Your task to perform on an android device: Where can I buy a nice beach bag? Image 0: 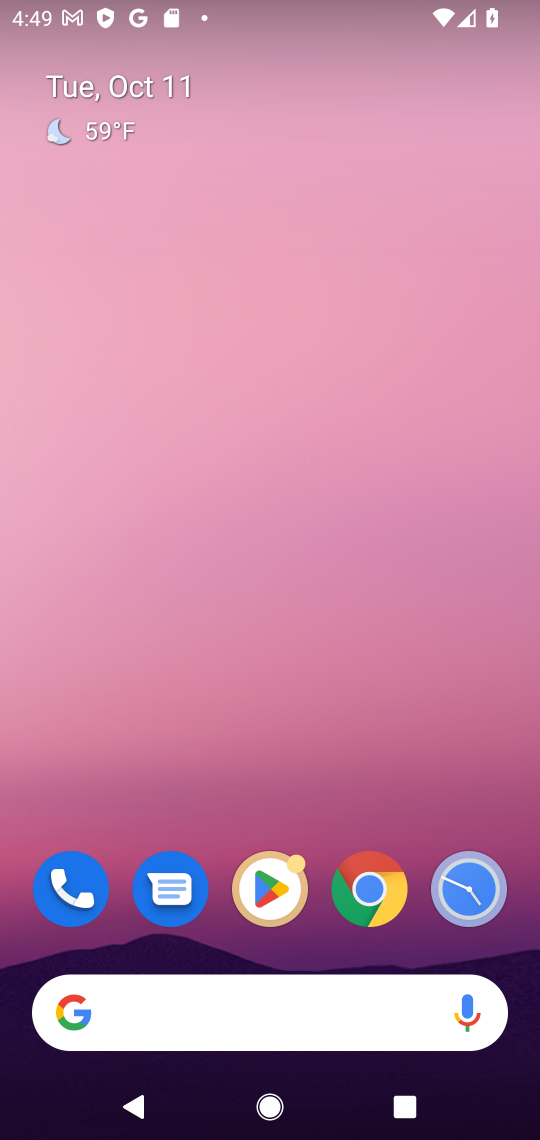
Step 0: drag from (283, 919) to (280, 406)
Your task to perform on an android device: Where can I buy a nice beach bag? Image 1: 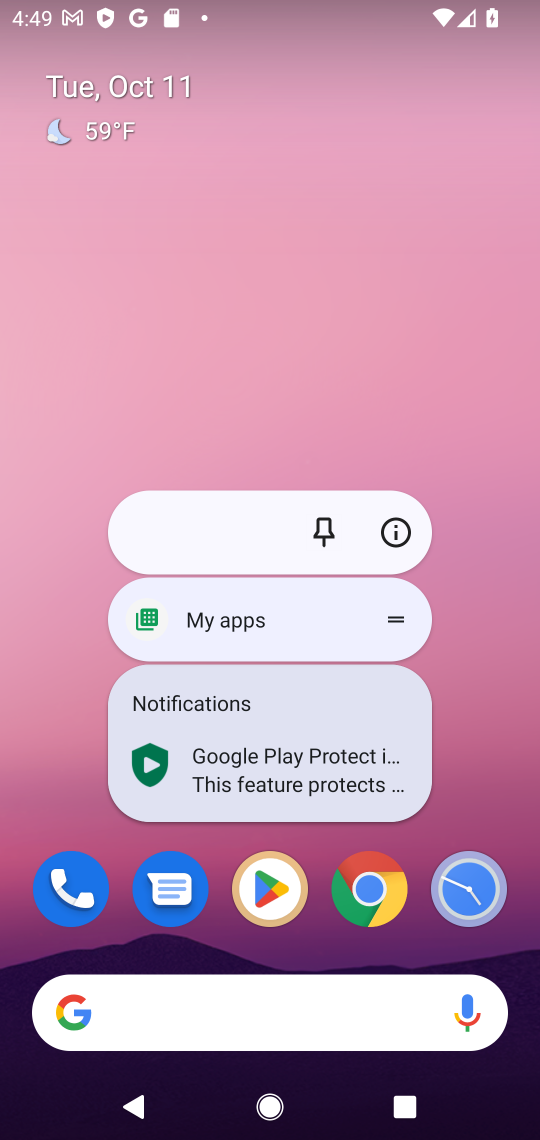
Step 1: click (62, 532)
Your task to perform on an android device: Where can I buy a nice beach bag? Image 2: 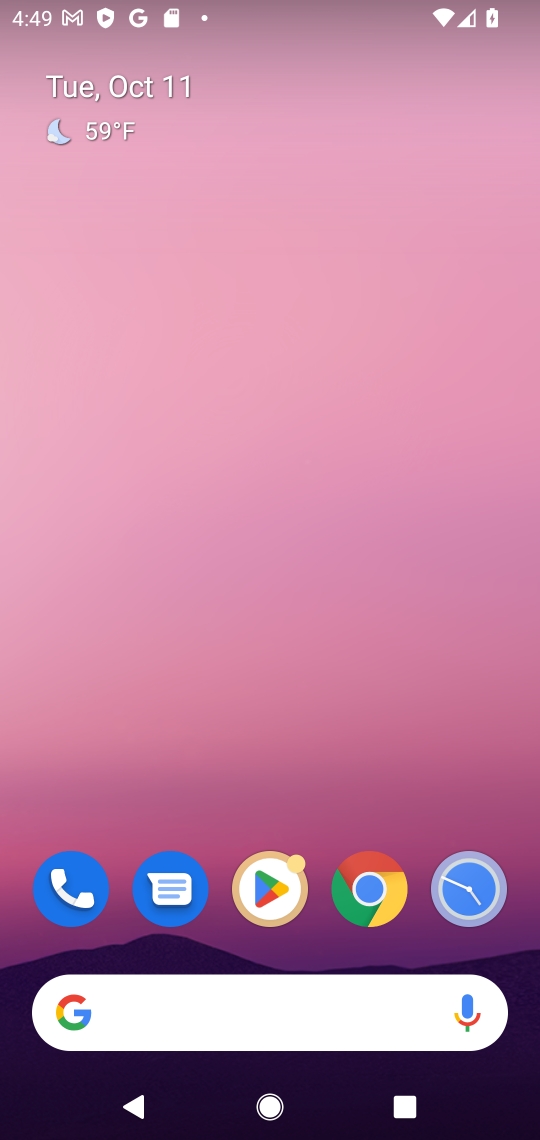
Step 2: drag from (245, 970) to (248, 568)
Your task to perform on an android device: Where can I buy a nice beach bag? Image 3: 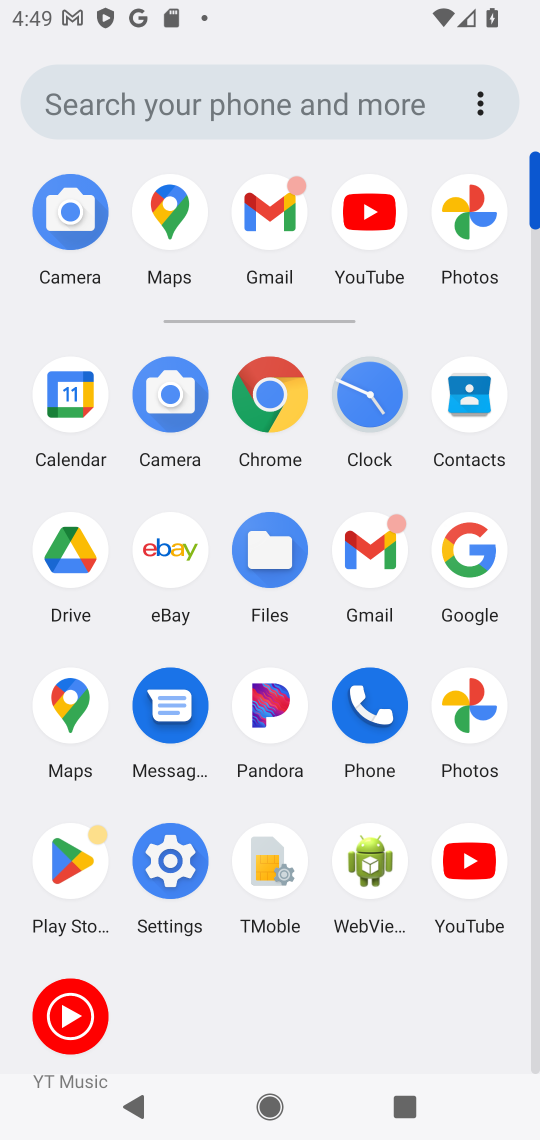
Step 3: click (471, 525)
Your task to perform on an android device: Where can I buy a nice beach bag? Image 4: 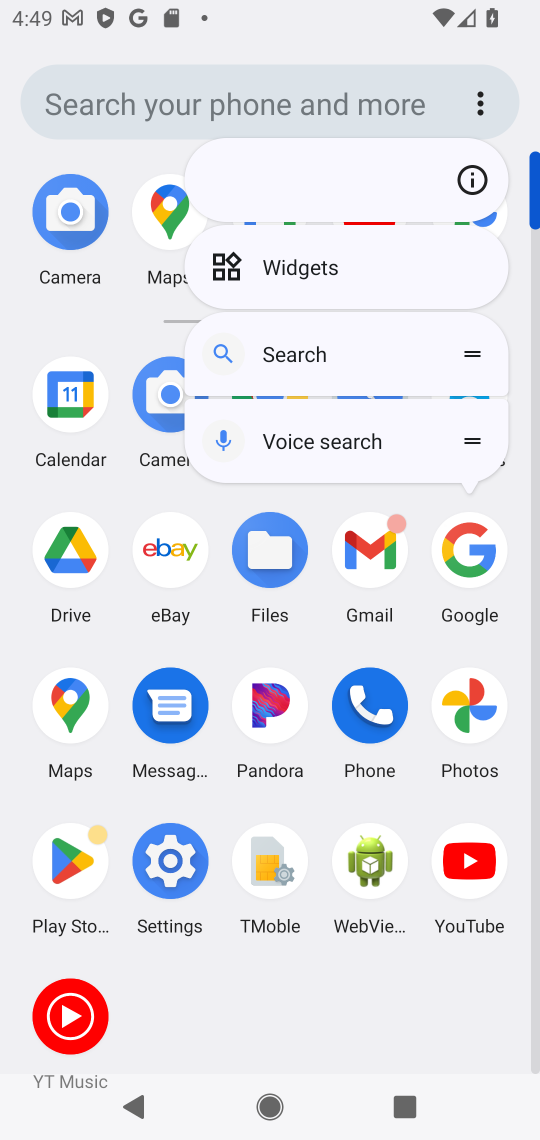
Step 4: click (468, 543)
Your task to perform on an android device: Where can I buy a nice beach bag? Image 5: 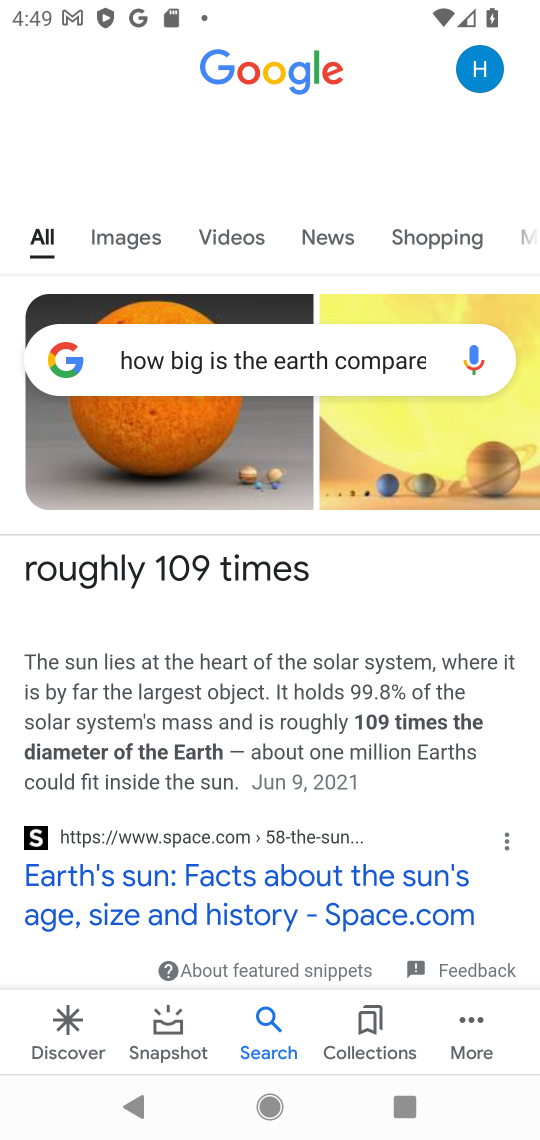
Step 5: click (267, 347)
Your task to perform on an android device: Where can I buy a nice beach bag? Image 6: 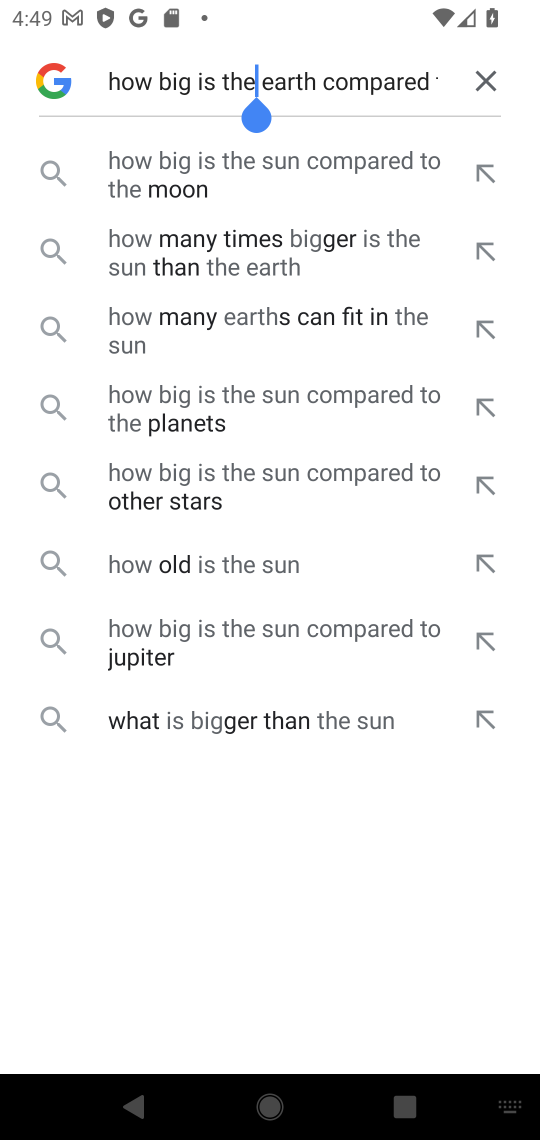
Step 6: click (496, 74)
Your task to perform on an android device: Where can I buy a nice beach bag? Image 7: 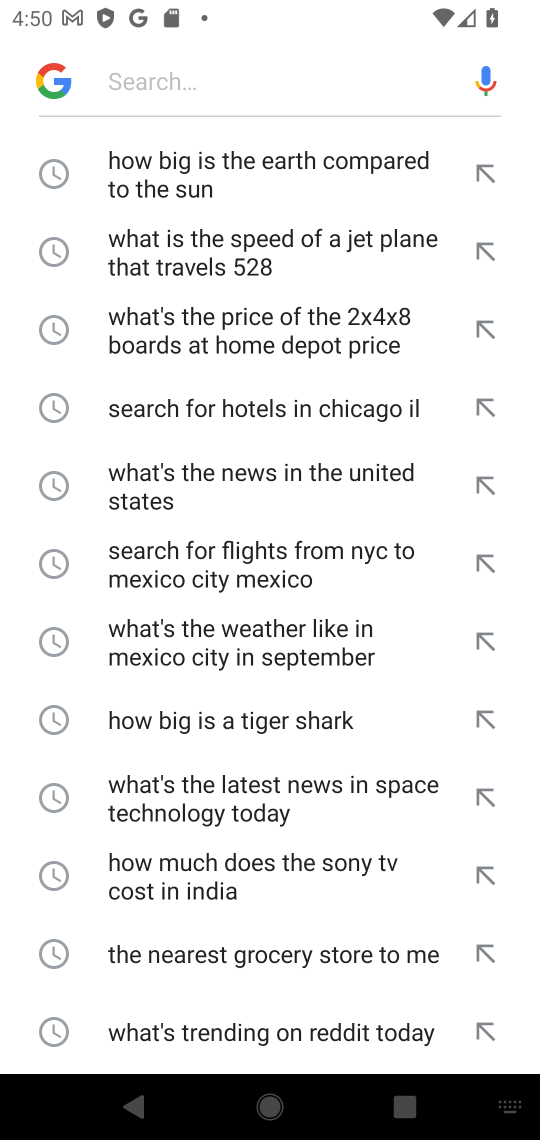
Step 7: click (284, 54)
Your task to perform on an android device: Where can I buy a nice beach bag? Image 8: 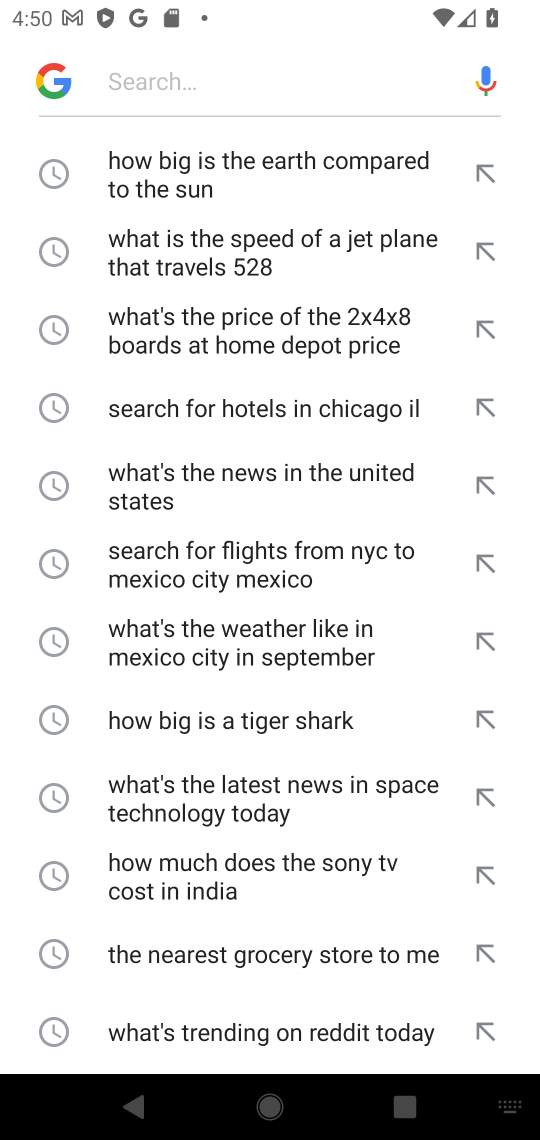
Step 8: type "Where can I buy a nice beach bag "
Your task to perform on an android device: Where can I buy a nice beach bag? Image 9: 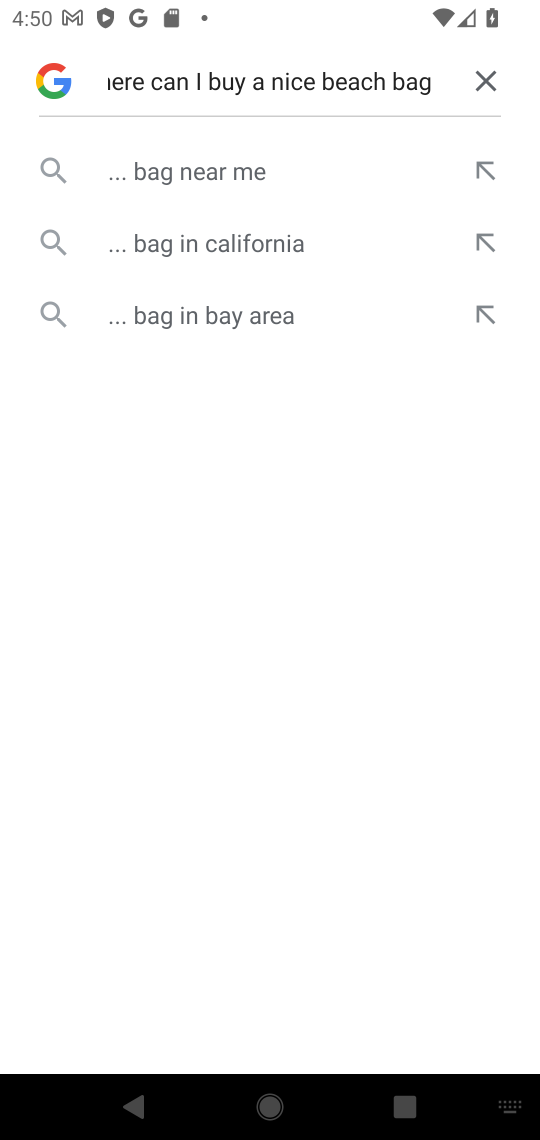
Step 9: click (214, 166)
Your task to perform on an android device: Where can I buy a nice beach bag? Image 10: 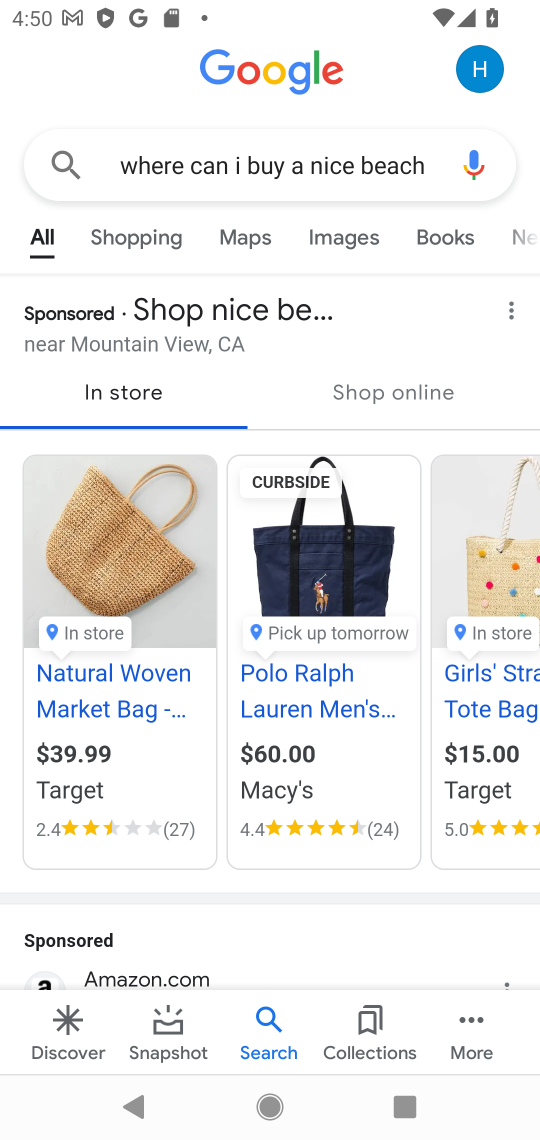
Step 10: task complete